Your task to perform on an android device: turn off javascript in the chrome app Image 0: 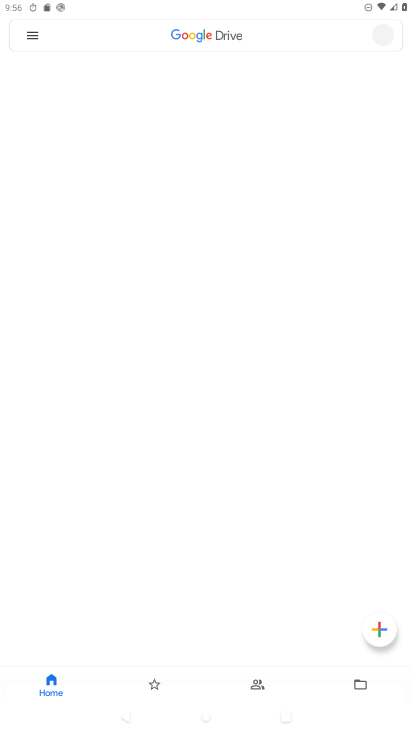
Step 0: press home button
Your task to perform on an android device: turn off javascript in the chrome app Image 1: 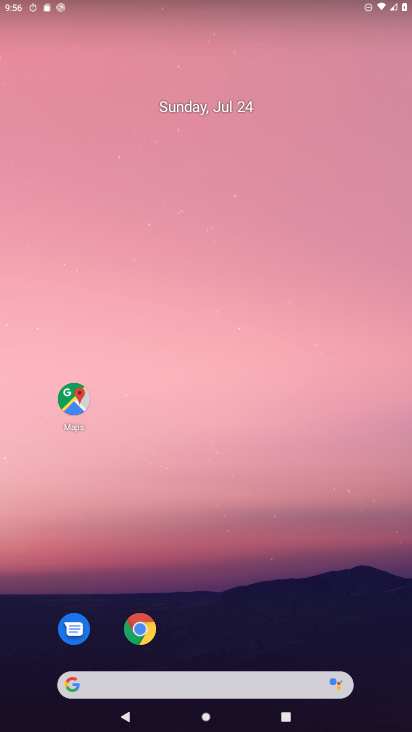
Step 1: drag from (231, 680) to (273, 237)
Your task to perform on an android device: turn off javascript in the chrome app Image 2: 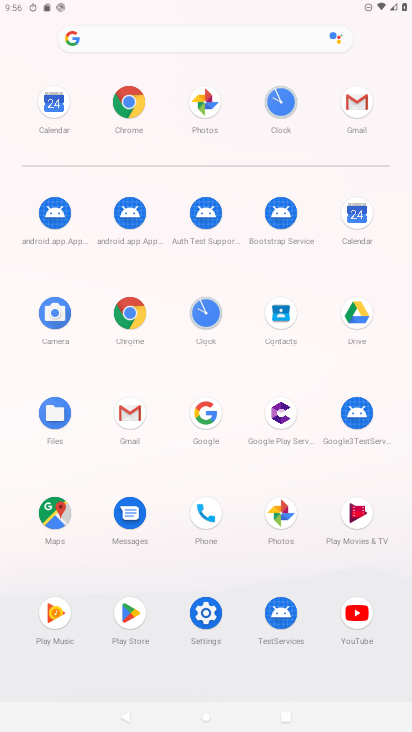
Step 2: click (136, 117)
Your task to perform on an android device: turn off javascript in the chrome app Image 3: 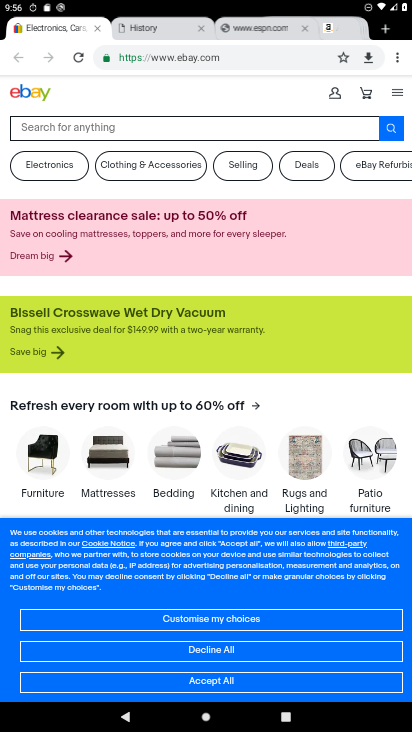
Step 3: click (403, 64)
Your task to perform on an android device: turn off javascript in the chrome app Image 4: 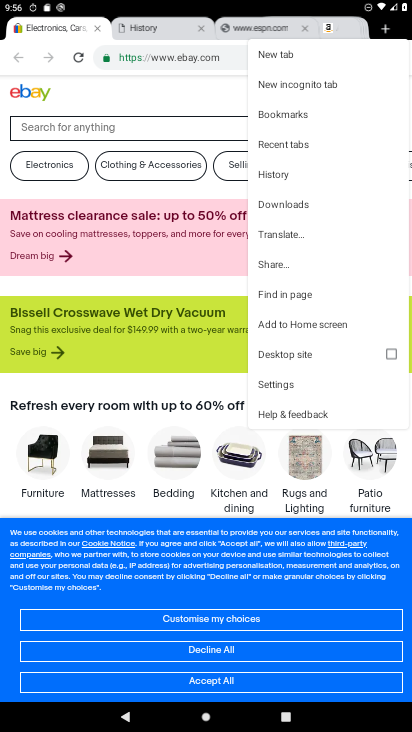
Step 4: click (289, 384)
Your task to perform on an android device: turn off javascript in the chrome app Image 5: 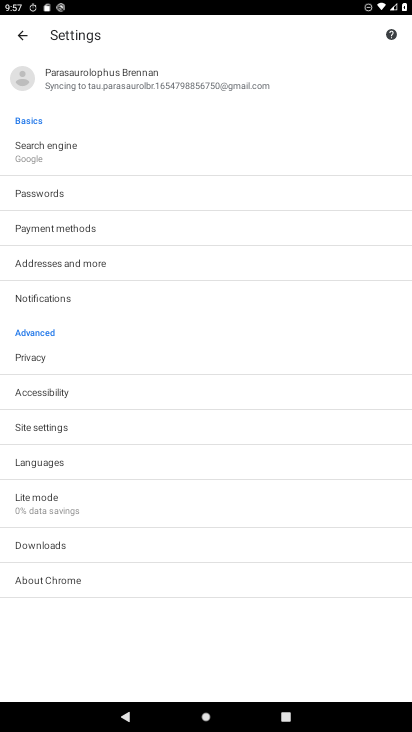
Step 5: click (54, 428)
Your task to perform on an android device: turn off javascript in the chrome app Image 6: 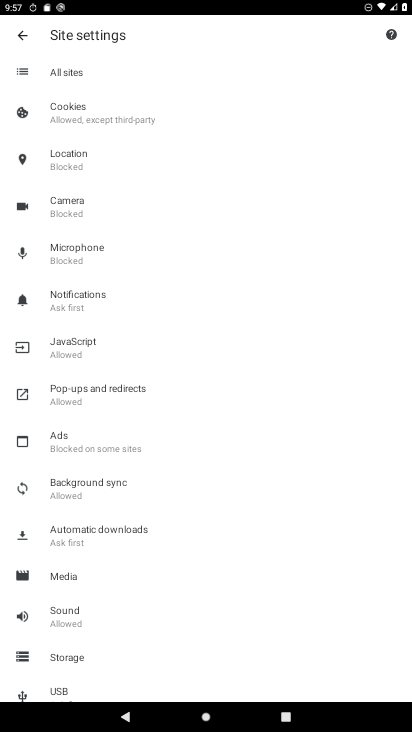
Step 6: click (63, 356)
Your task to perform on an android device: turn off javascript in the chrome app Image 7: 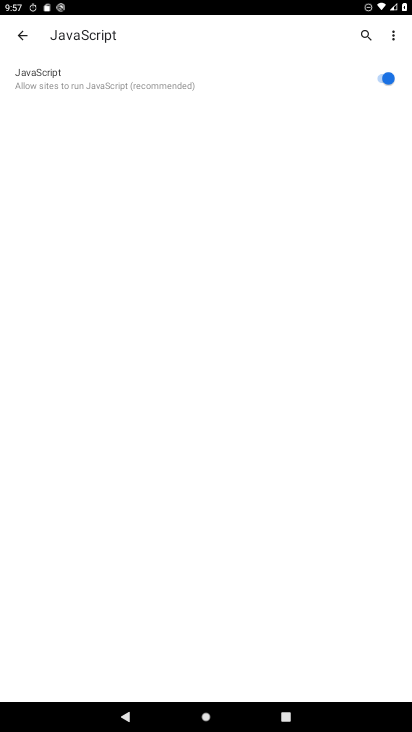
Step 7: click (374, 83)
Your task to perform on an android device: turn off javascript in the chrome app Image 8: 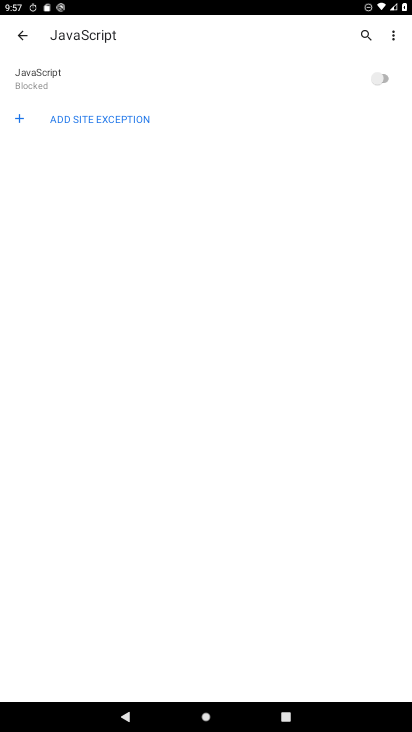
Step 8: task complete